Your task to perform on an android device: Empty the shopping cart on newegg.com. Add "razer nari" to the cart on newegg.com Image 0: 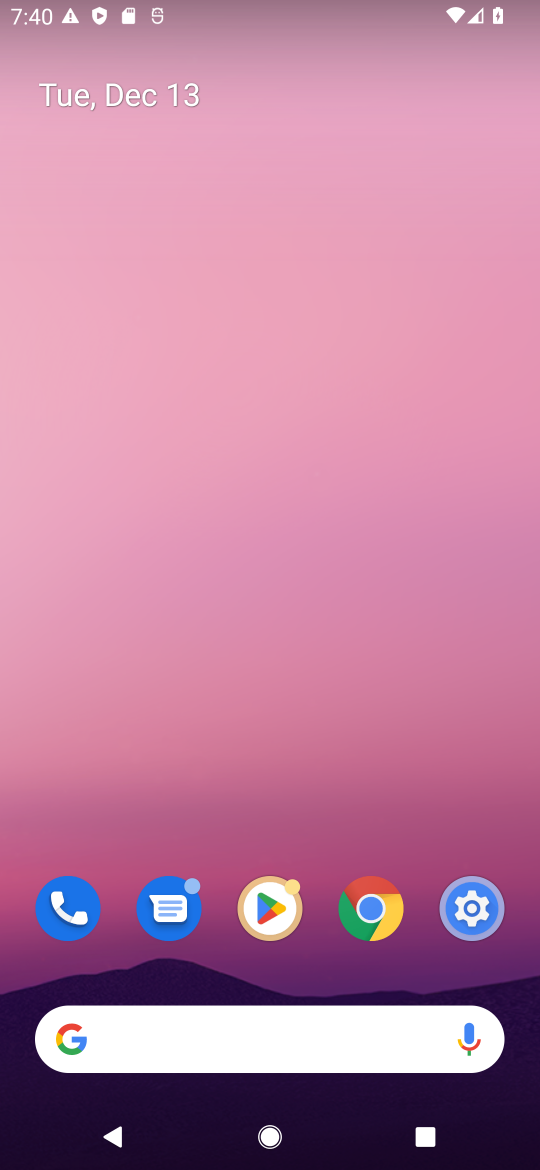
Step 0: press home button
Your task to perform on an android device: Empty the shopping cart on newegg.com. Add "razer nari" to the cart on newegg.com Image 1: 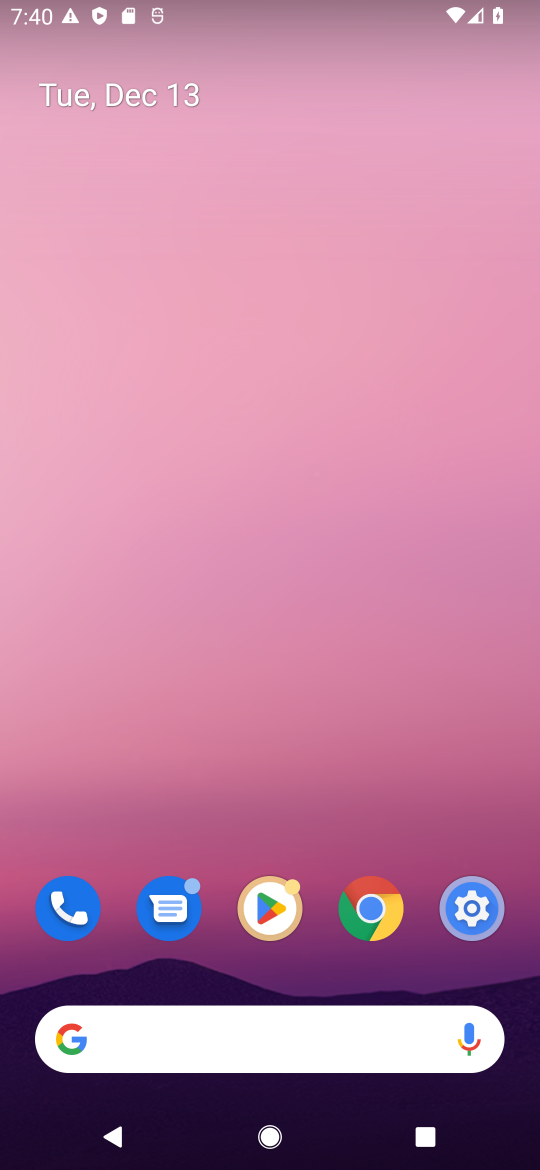
Step 1: click (95, 1034)
Your task to perform on an android device: Empty the shopping cart on newegg.com. Add "razer nari" to the cart on newegg.com Image 2: 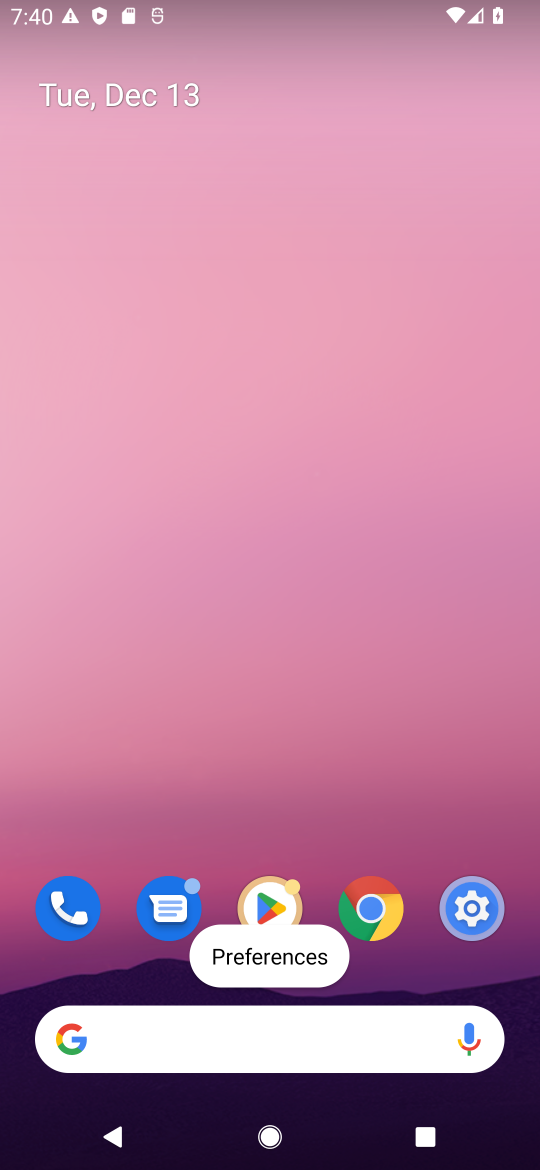
Step 2: click (110, 1039)
Your task to perform on an android device: Empty the shopping cart on newegg.com. Add "razer nari" to the cart on newegg.com Image 3: 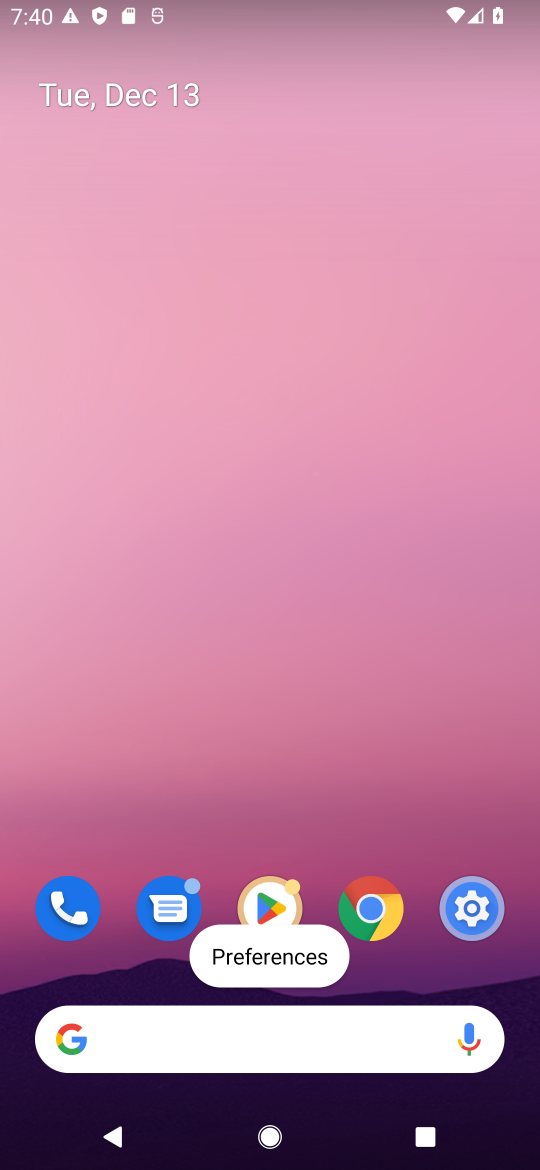
Step 3: click (105, 1027)
Your task to perform on an android device: Empty the shopping cart on newegg.com. Add "razer nari" to the cart on newegg.com Image 4: 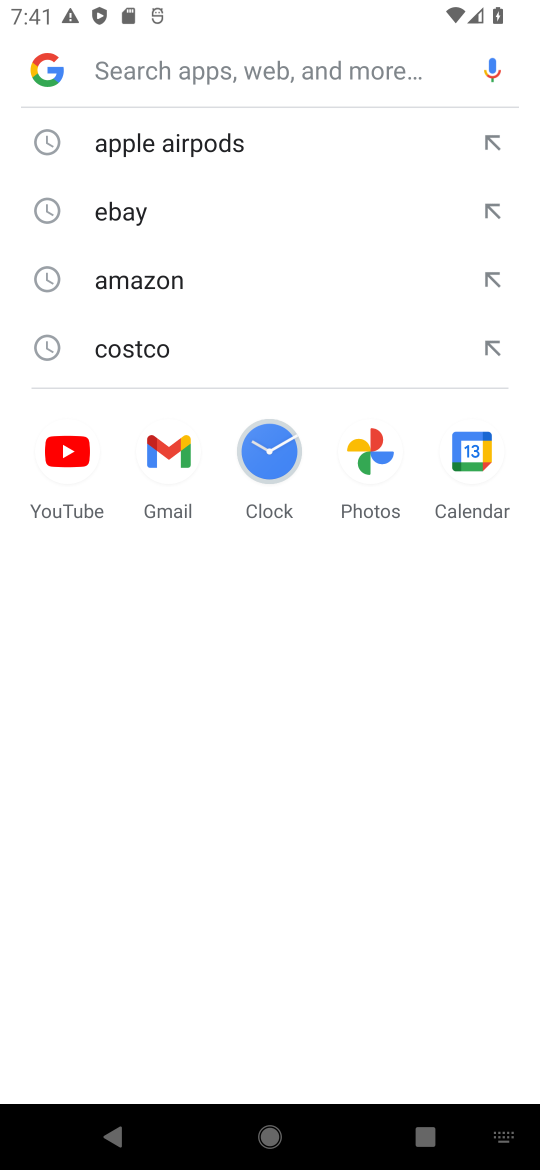
Step 4: type "newegg.com"
Your task to perform on an android device: Empty the shopping cart on newegg.com. Add "razer nari" to the cart on newegg.com Image 5: 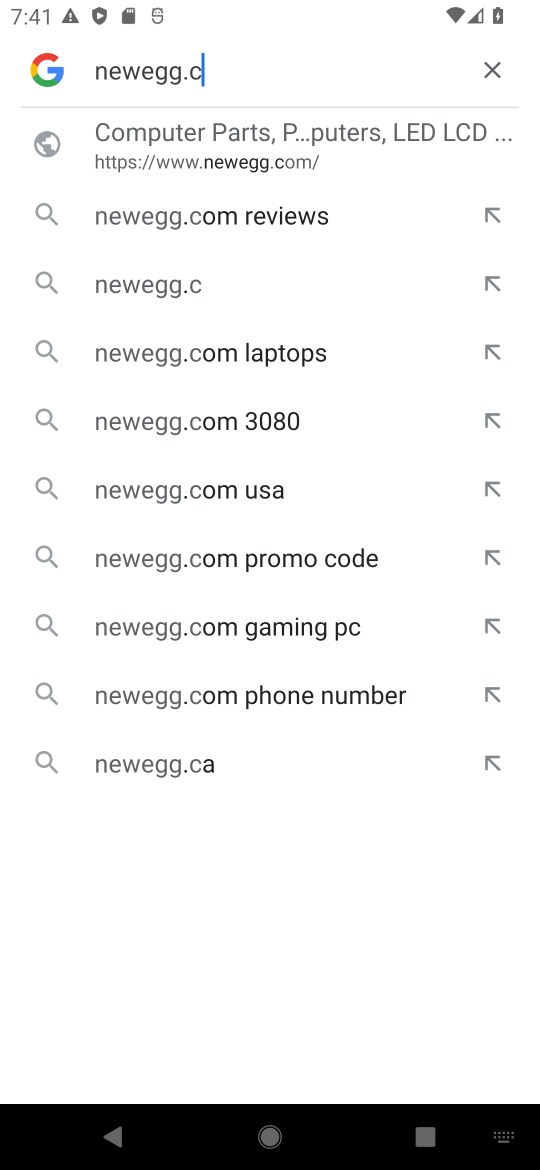
Step 5: press enter
Your task to perform on an android device: Empty the shopping cart on newegg.com. Add "razer nari" to the cart on newegg.com Image 6: 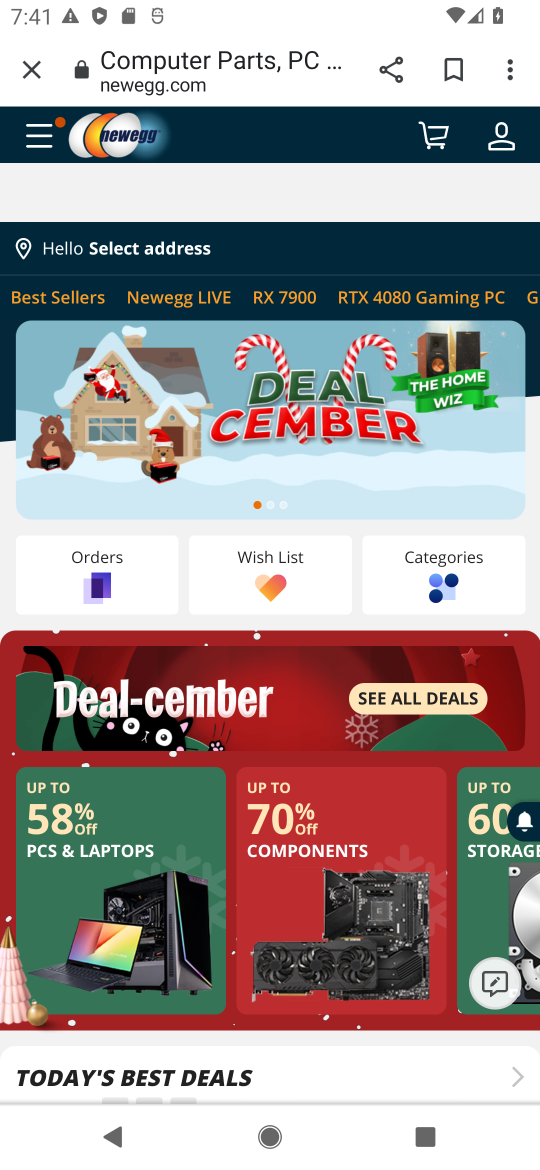
Step 6: click (430, 138)
Your task to perform on an android device: Empty the shopping cart on newegg.com. Add "razer nari" to the cart on newegg.com Image 7: 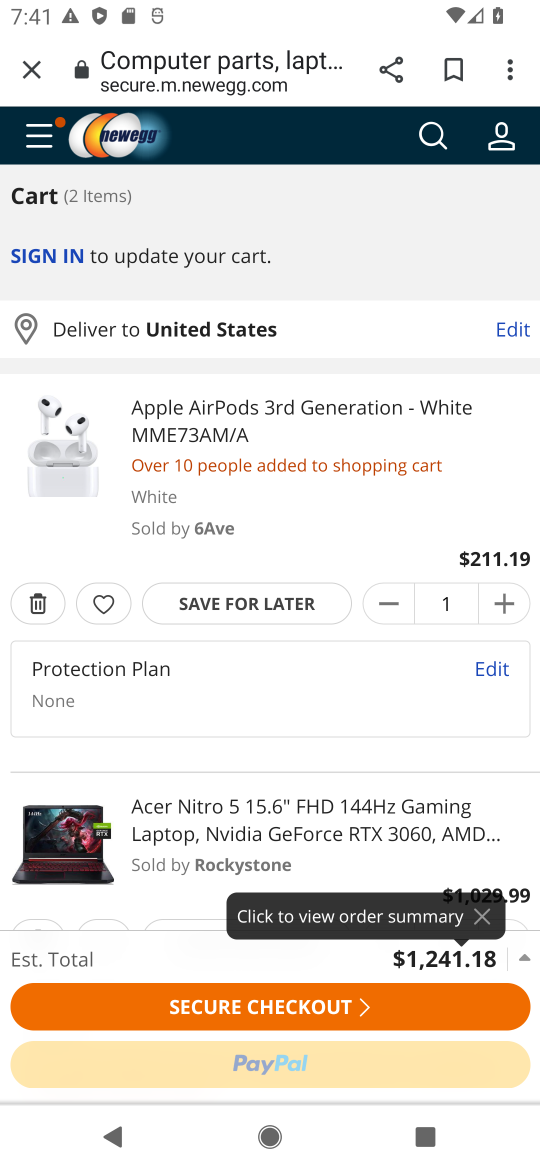
Step 7: click (33, 611)
Your task to perform on an android device: Empty the shopping cart on newegg.com. Add "razer nari" to the cart on newegg.com Image 8: 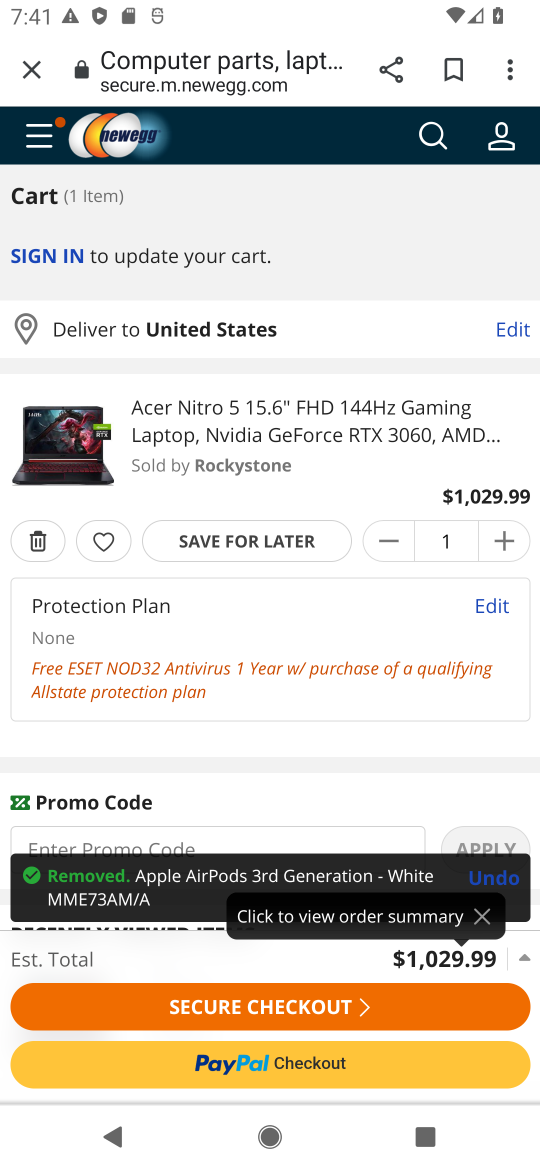
Step 8: click (35, 542)
Your task to perform on an android device: Empty the shopping cart on newegg.com. Add "razer nari" to the cart on newegg.com Image 9: 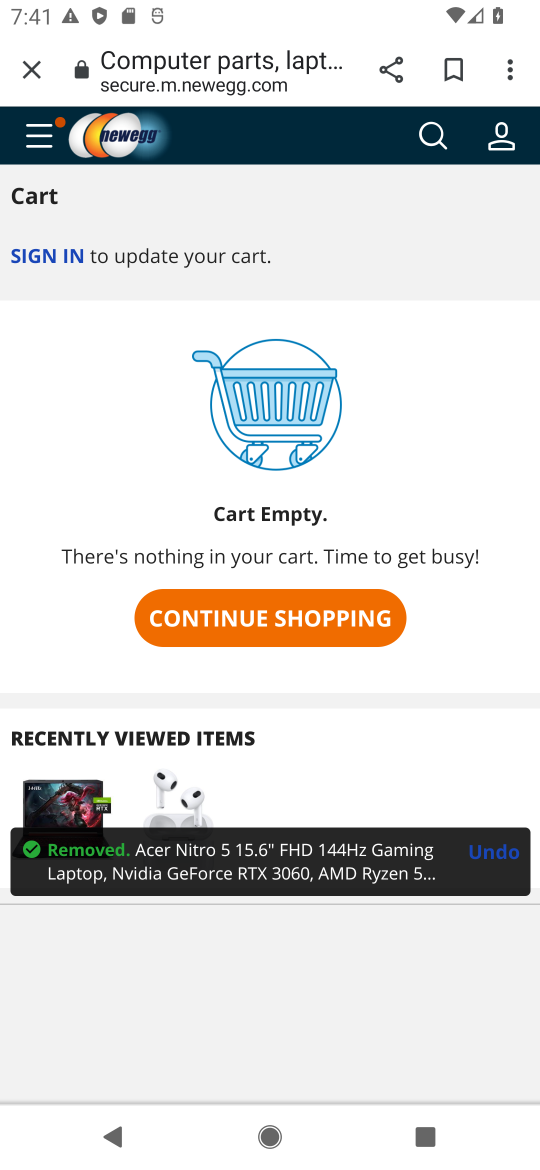
Step 9: click (429, 138)
Your task to perform on an android device: Empty the shopping cart on newegg.com. Add "razer nari" to the cart on newegg.com Image 10: 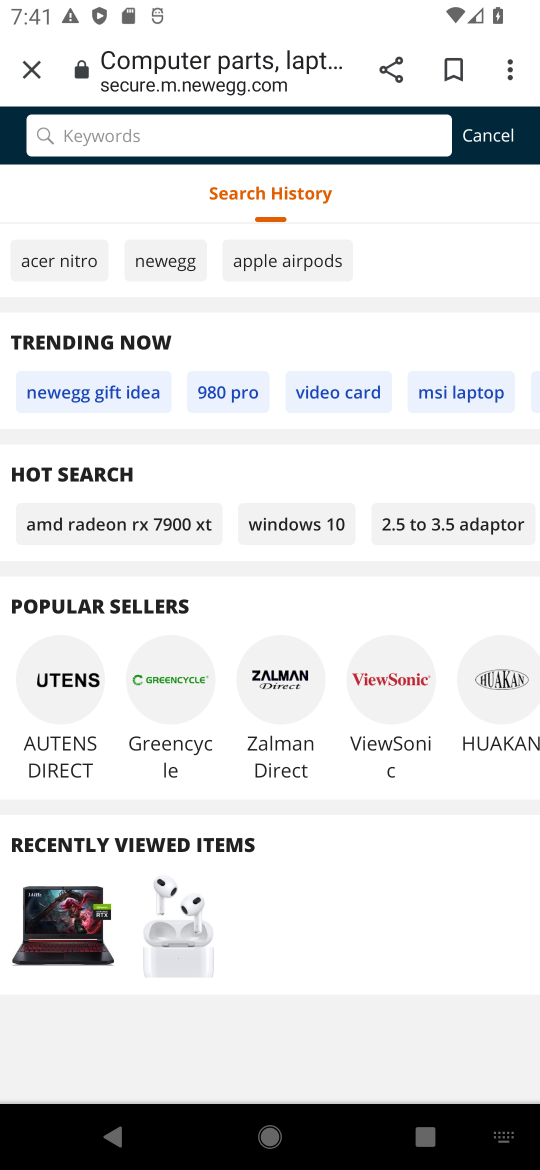
Step 10: type "razer nari"
Your task to perform on an android device: Empty the shopping cart on newegg.com. Add "razer nari" to the cart on newegg.com Image 11: 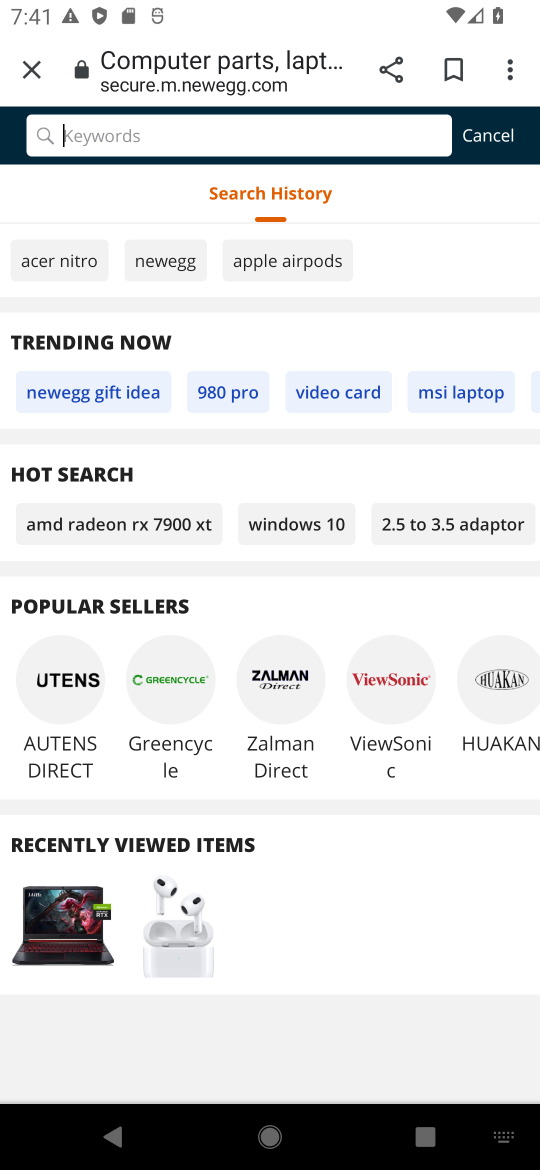
Step 11: press enter
Your task to perform on an android device: Empty the shopping cart on newegg.com. Add "razer nari" to the cart on newegg.com Image 12: 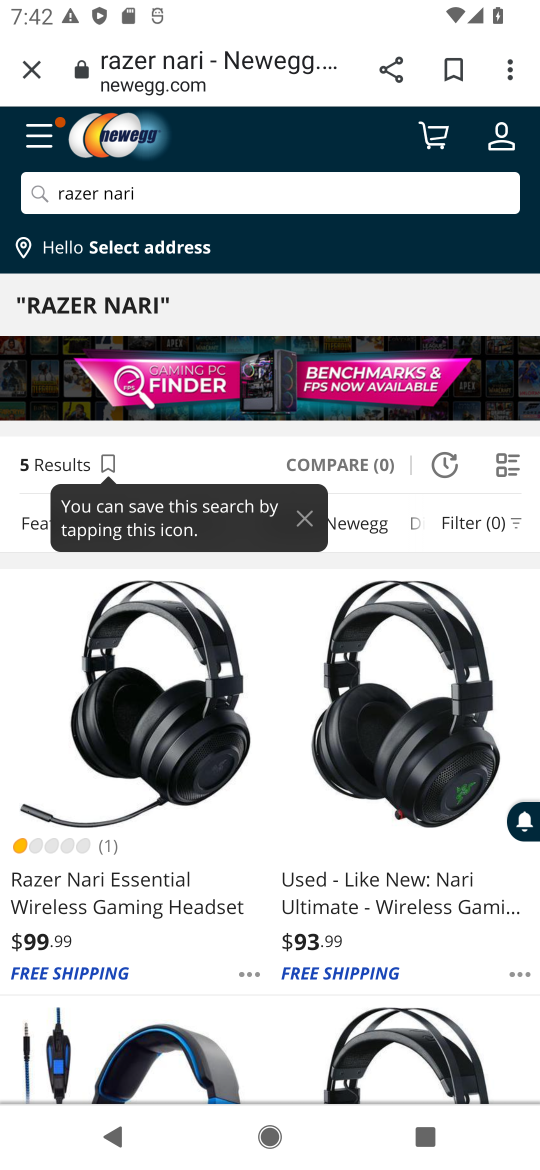
Step 12: click (121, 793)
Your task to perform on an android device: Empty the shopping cart on newegg.com. Add "razer nari" to the cart on newegg.com Image 13: 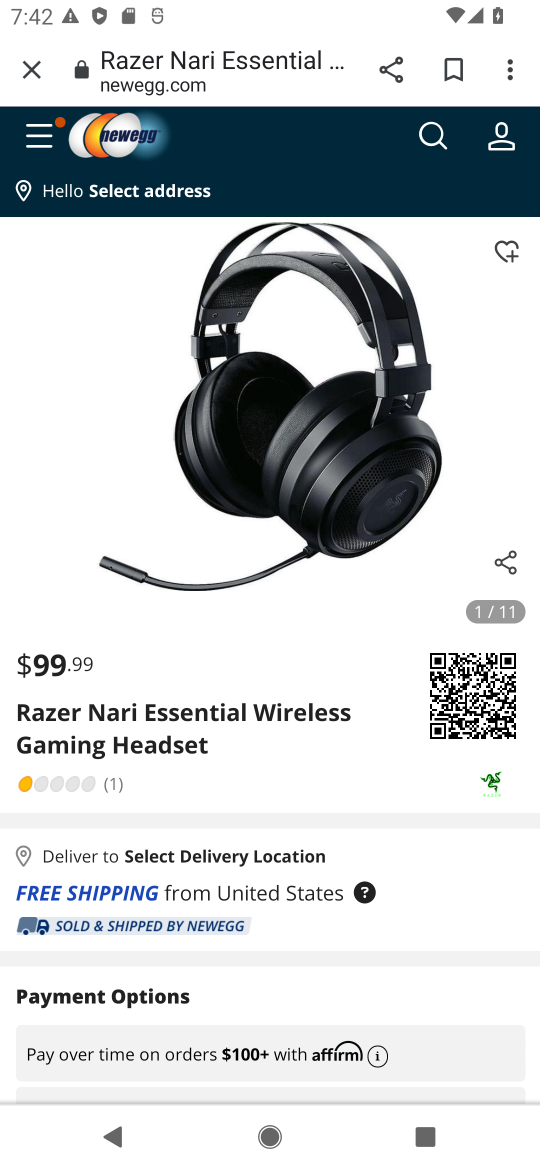
Step 13: drag from (253, 957) to (277, 388)
Your task to perform on an android device: Empty the shopping cart on newegg.com. Add "razer nari" to the cart on newegg.com Image 14: 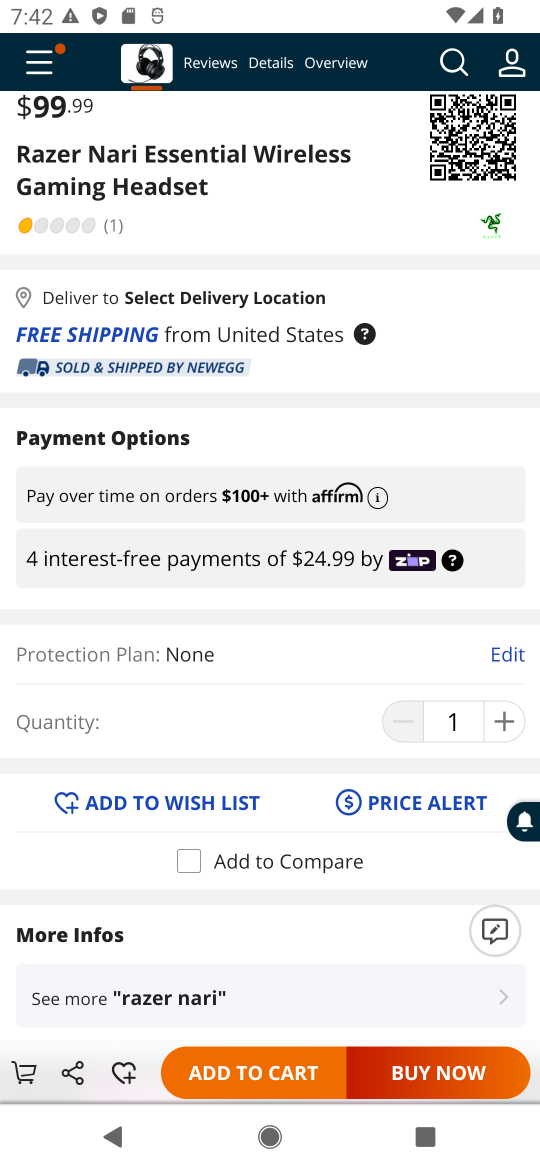
Step 14: click (248, 1080)
Your task to perform on an android device: Empty the shopping cart on newegg.com. Add "razer nari" to the cart on newegg.com Image 15: 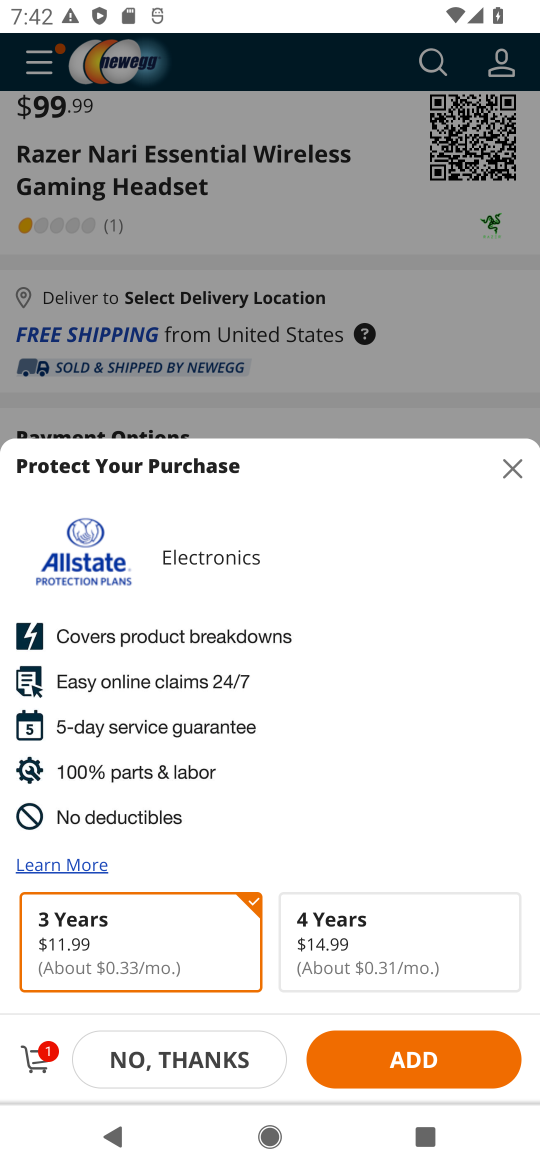
Step 15: task complete